Your task to perform on an android device: Search for "usb-c to usb-a" on newegg, select the first entry, and add it to the cart. Image 0: 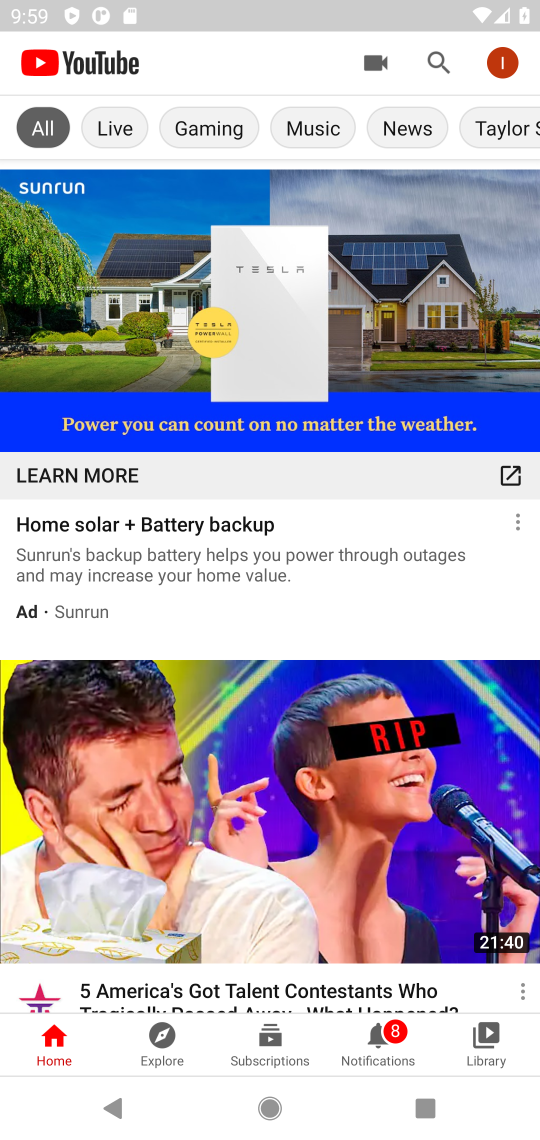
Step 0: press home button
Your task to perform on an android device: Search for "usb-c to usb-a" on newegg, select the first entry, and add it to the cart. Image 1: 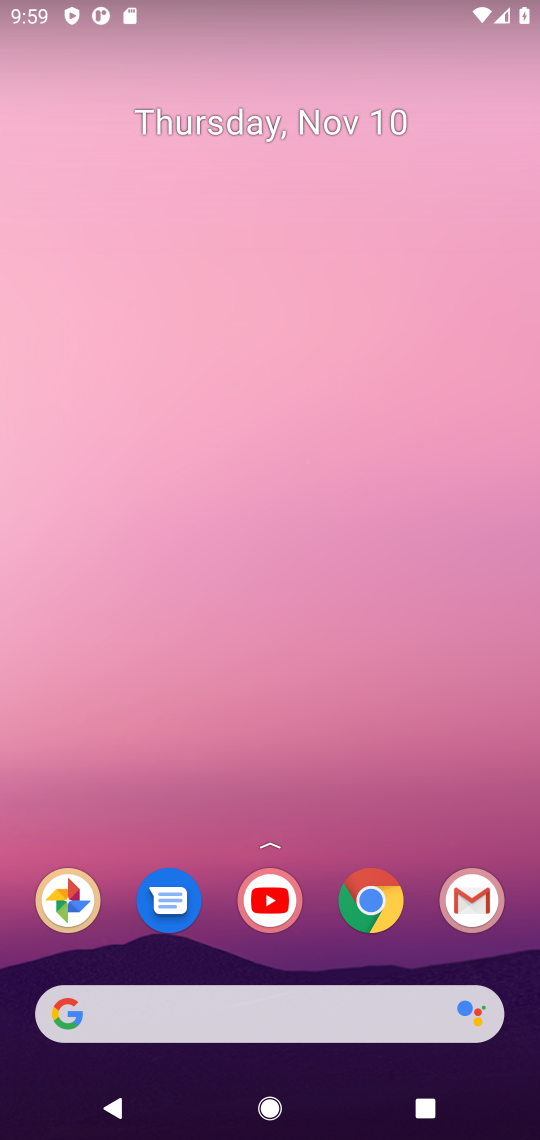
Step 1: click (368, 900)
Your task to perform on an android device: Search for "usb-c to usb-a" on newegg, select the first entry, and add it to the cart. Image 2: 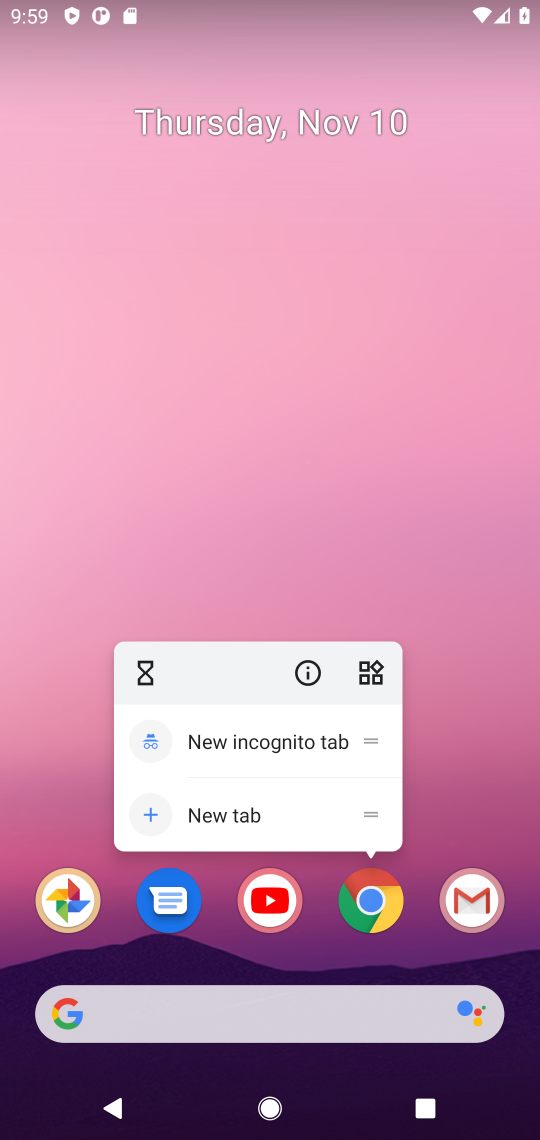
Step 2: click (367, 904)
Your task to perform on an android device: Search for "usb-c to usb-a" on newegg, select the first entry, and add it to the cart. Image 3: 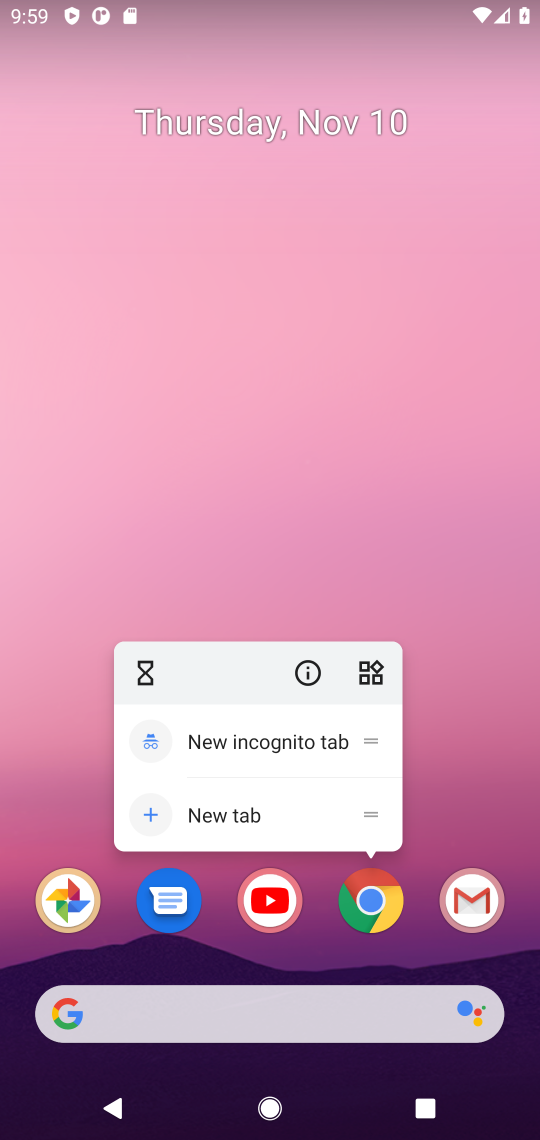
Step 3: click (367, 906)
Your task to perform on an android device: Search for "usb-c to usb-a" on newegg, select the first entry, and add it to the cart. Image 4: 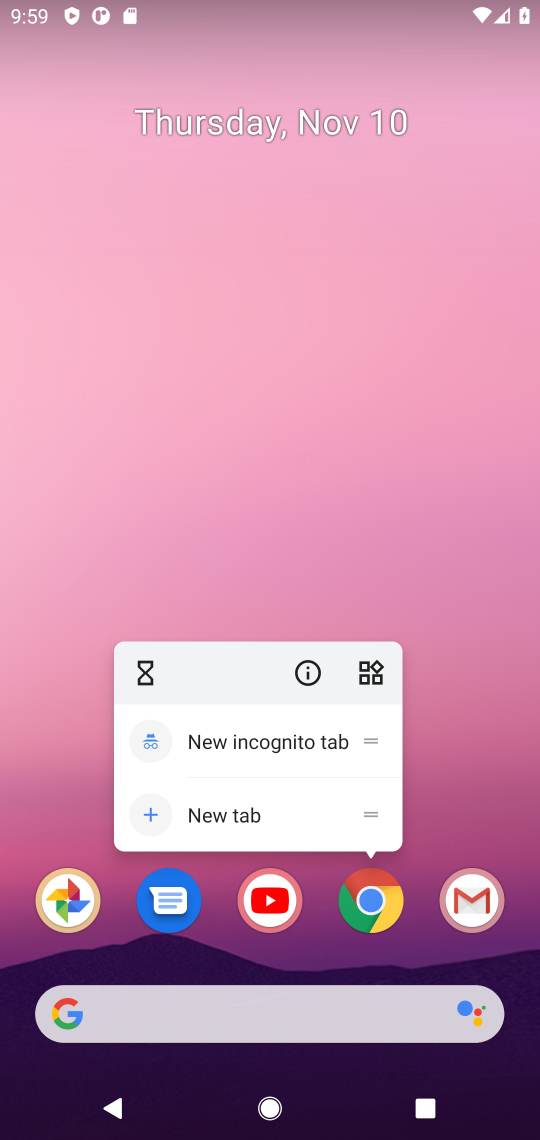
Step 4: click (367, 904)
Your task to perform on an android device: Search for "usb-c to usb-a" on newegg, select the first entry, and add it to the cart. Image 5: 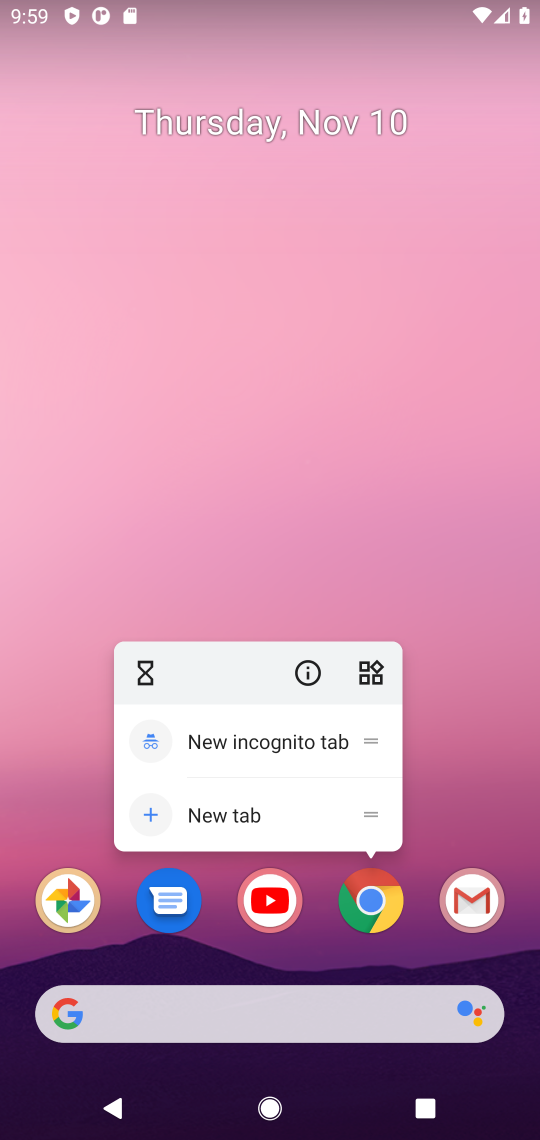
Step 5: click (367, 904)
Your task to perform on an android device: Search for "usb-c to usb-a" on newegg, select the first entry, and add it to the cart. Image 6: 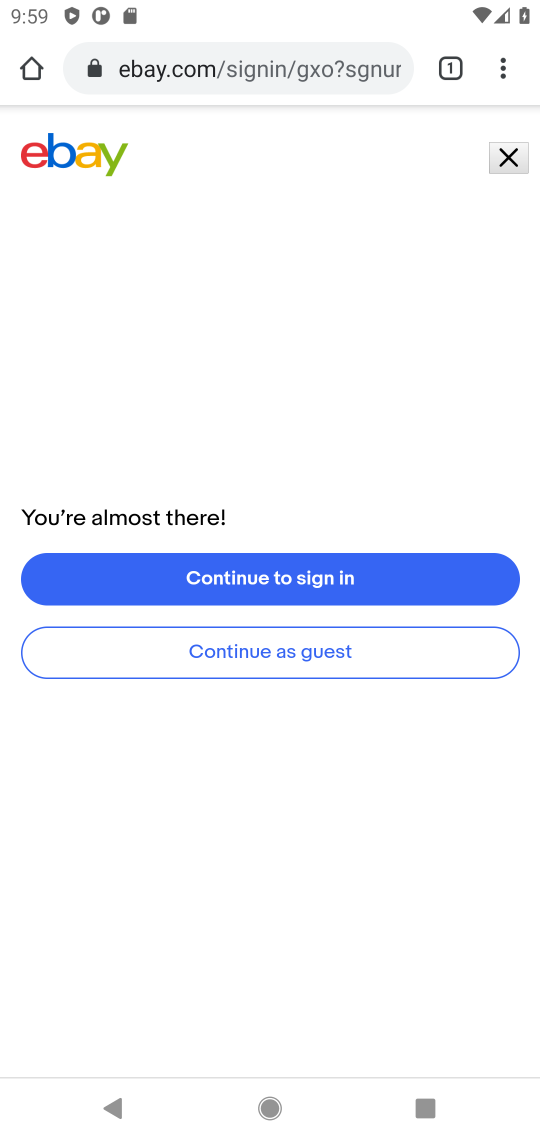
Step 6: click (344, 59)
Your task to perform on an android device: Search for "usb-c to usb-a" on newegg, select the first entry, and add it to the cart. Image 7: 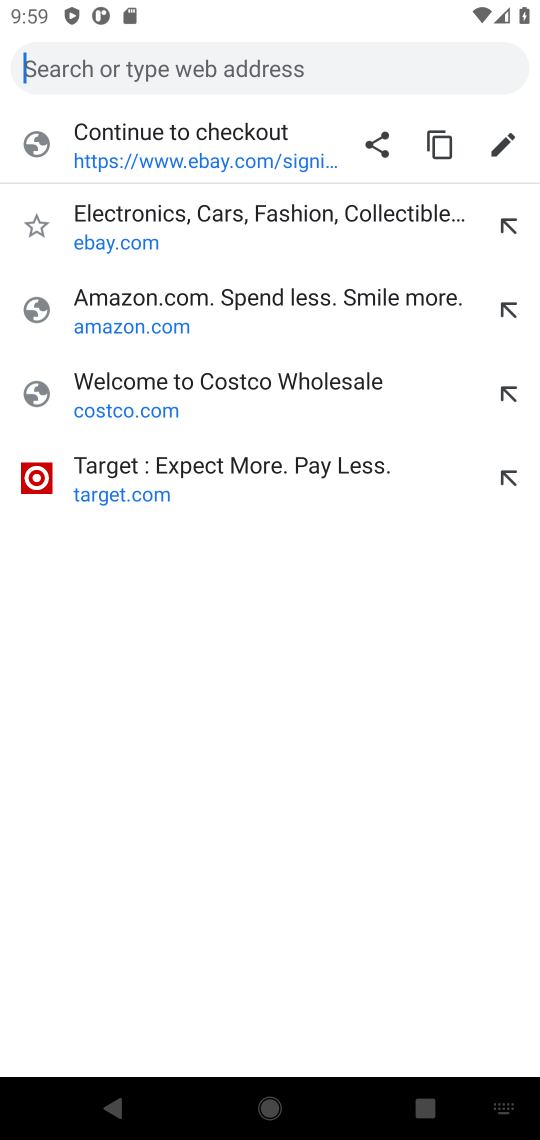
Step 7: type "newegg"
Your task to perform on an android device: Search for "usb-c to usb-a" on newegg, select the first entry, and add it to the cart. Image 8: 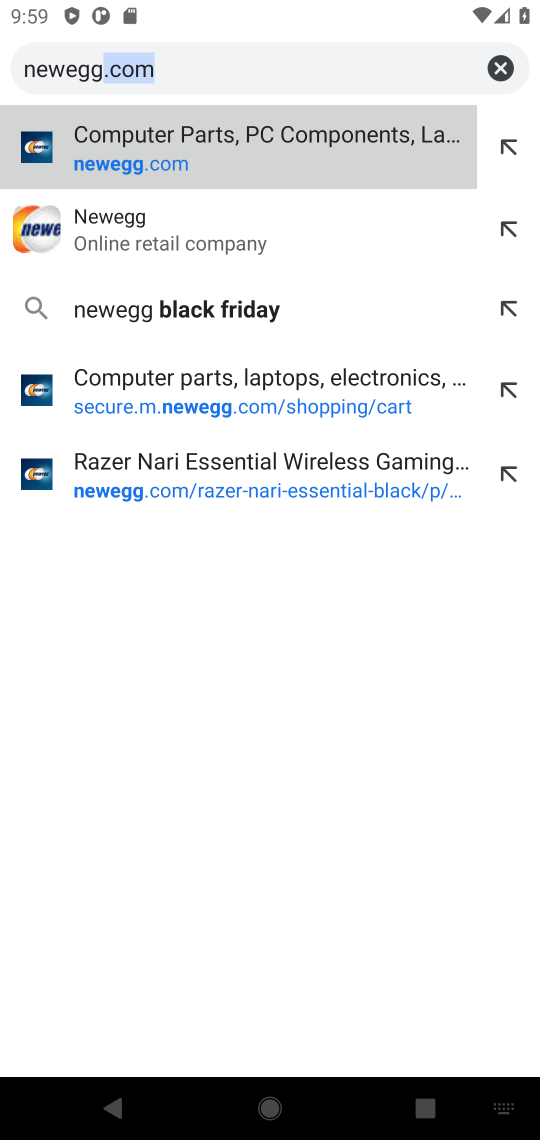
Step 8: press enter
Your task to perform on an android device: Search for "usb-c to usb-a" on newegg, select the first entry, and add it to the cart. Image 9: 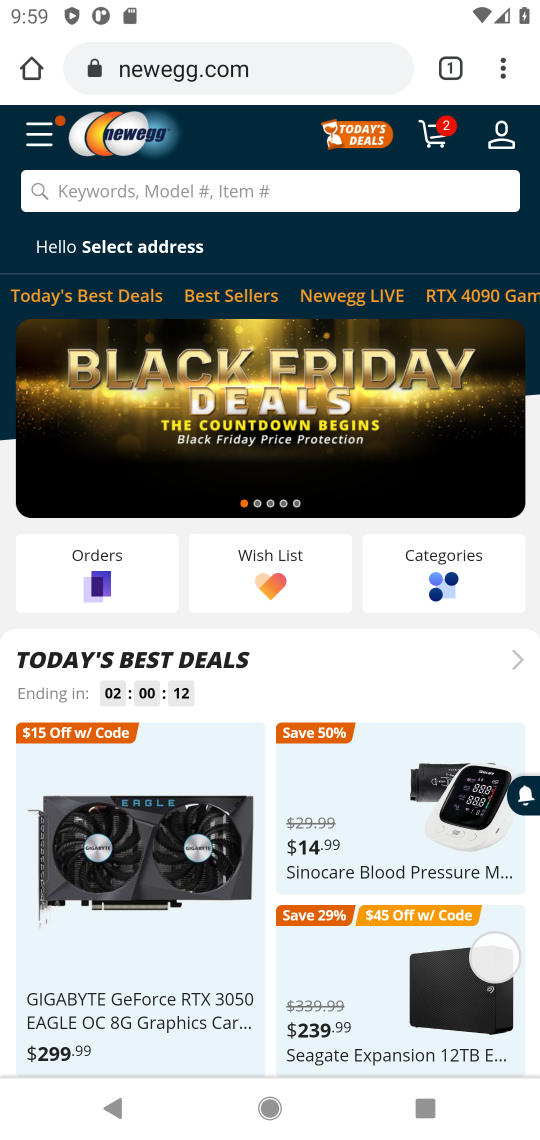
Step 9: click (209, 176)
Your task to perform on an android device: Search for "usb-c to usb-a" on newegg, select the first entry, and add it to the cart. Image 10: 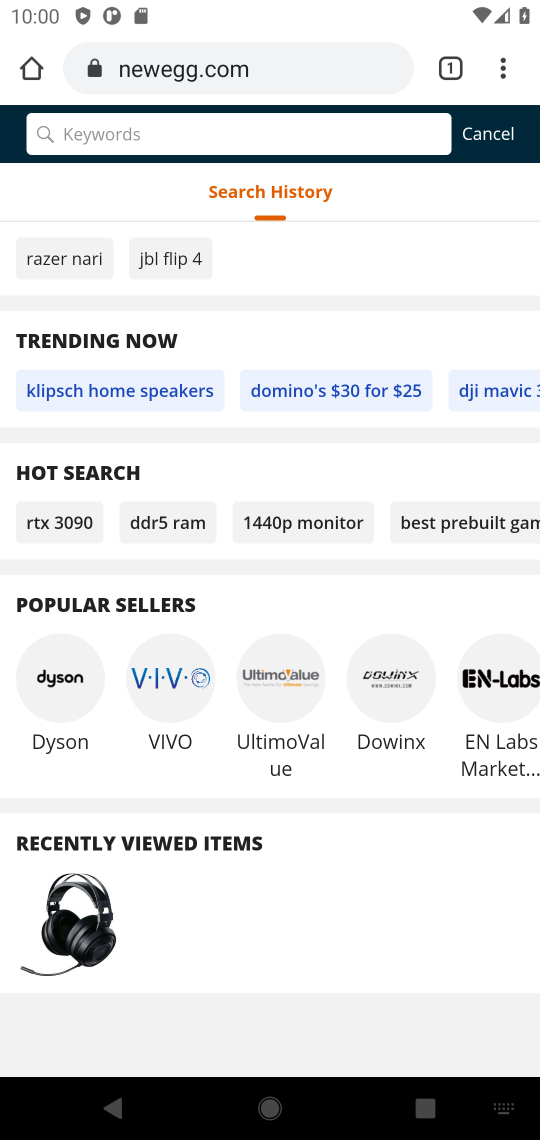
Step 10: type "usb-c to usb-a"
Your task to perform on an android device: Search for "usb-c to usb-a" on newegg, select the first entry, and add it to the cart. Image 11: 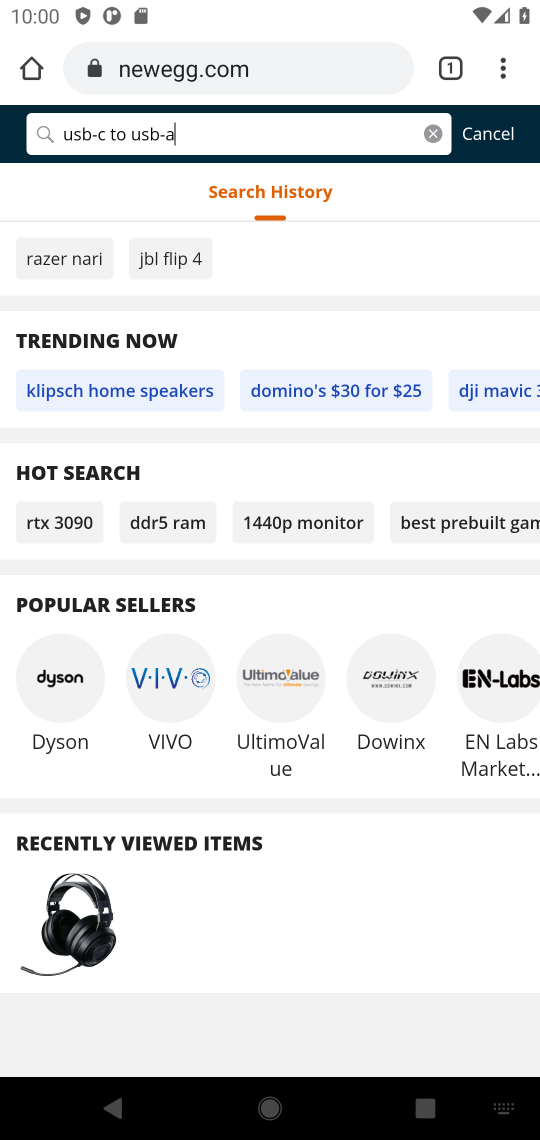
Step 11: press enter
Your task to perform on an android device: Search for "usb-c to usb-a" on newegg, select the first entry, and add it to the cart. Image 12: 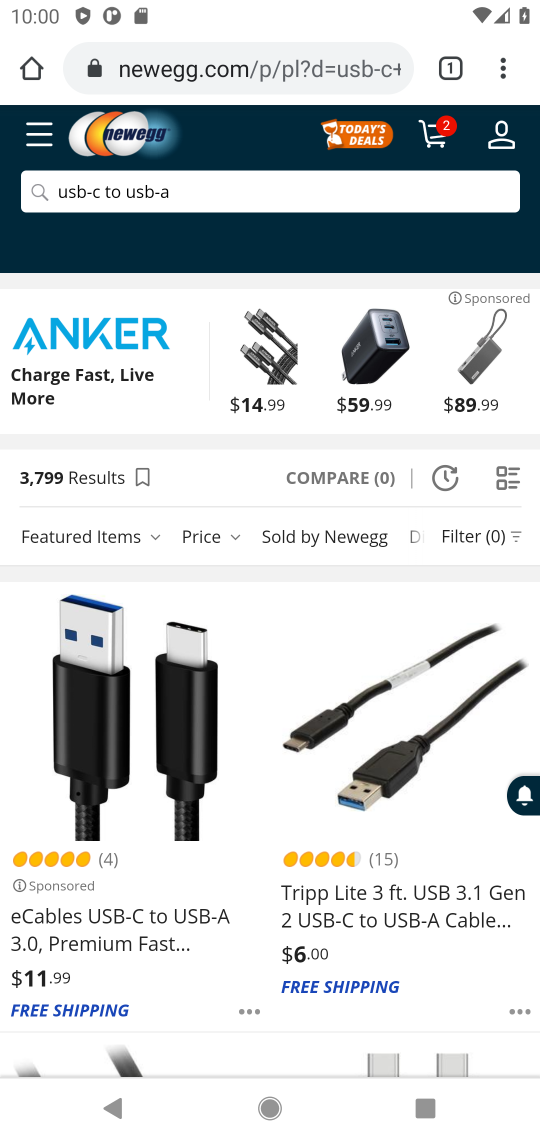
Step 12: click (98, 950)
Your task to perform on an android device: Search for "usb-c to usb-a" on newegg, select the first entry, and add it to the cart. Image 13: 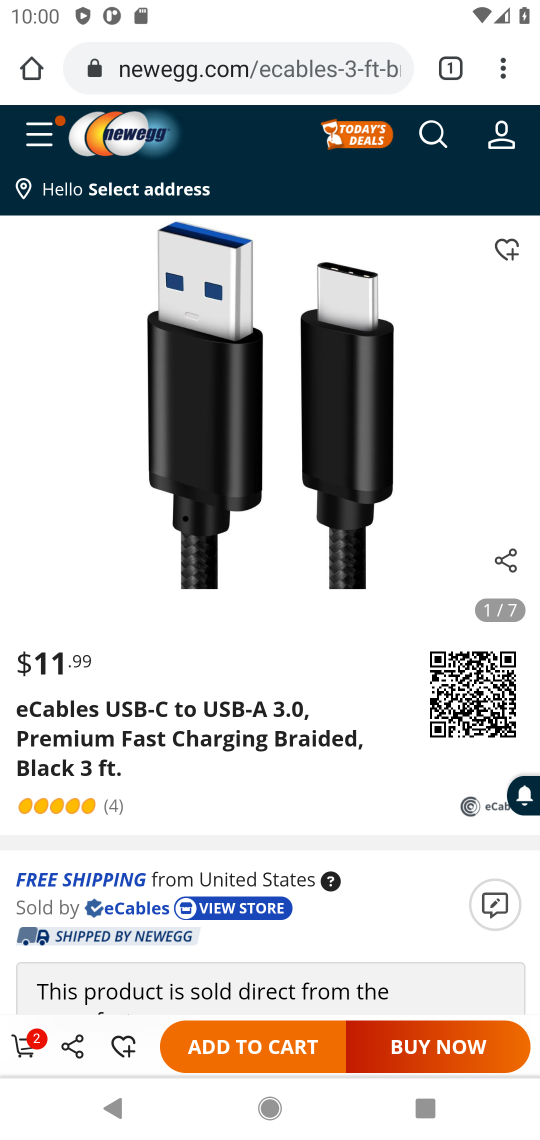
Step 13: click (267, 1041)
Your task to perform on an android device: Search for "usb-c to usb-a" on newegg, select the first entry, and add it to the cart. Image 14: 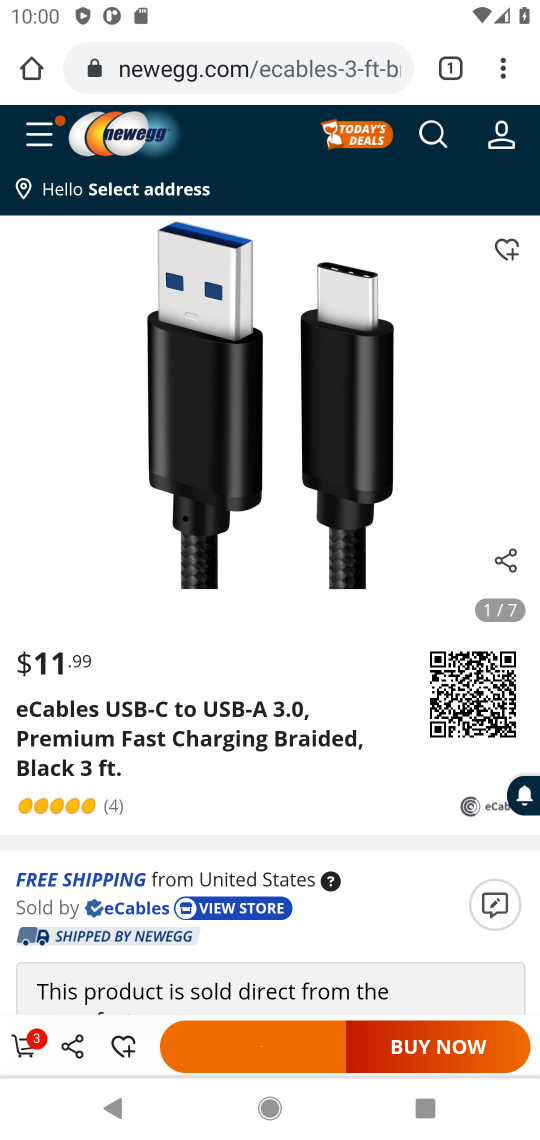
Step 14: click (22, 1058)
Your task to perform on an android device: Search for "usb-c to usb-a" on newegg, select the first entry, and add it to the cart. Image 15: 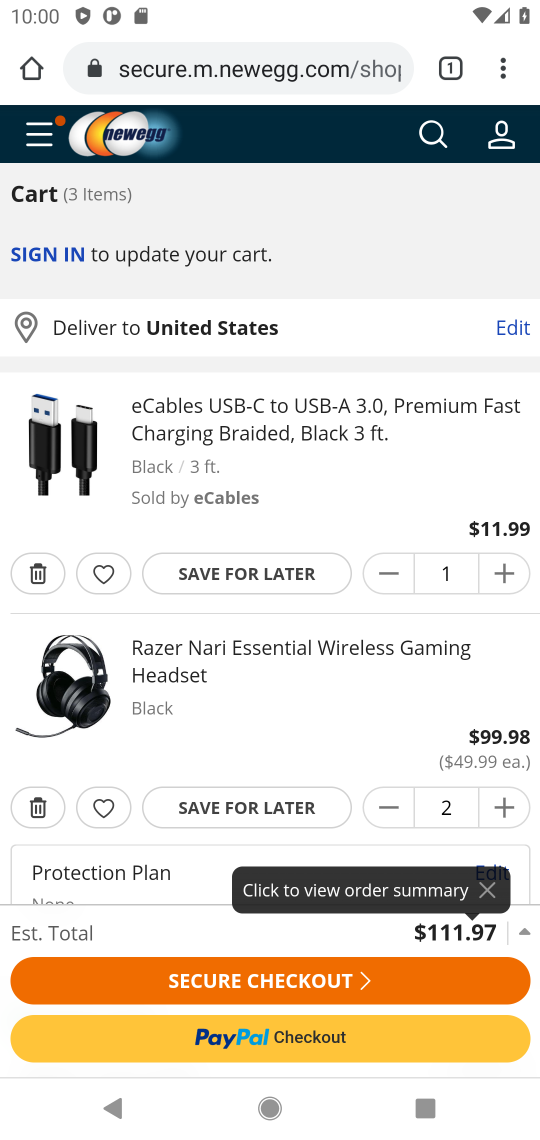
Step 15: task complete